Your task to perform on an android device: Show me the alarms in the clock app Image 0: 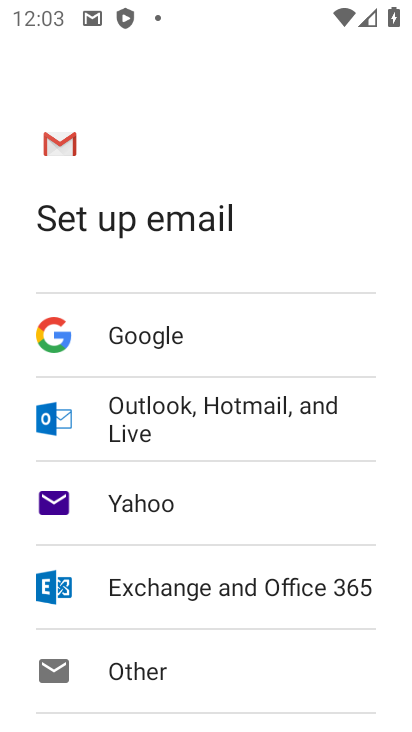
Step 0: press home button
Your task to perform on an android device: Show me the alarms in the clock app Image 1: 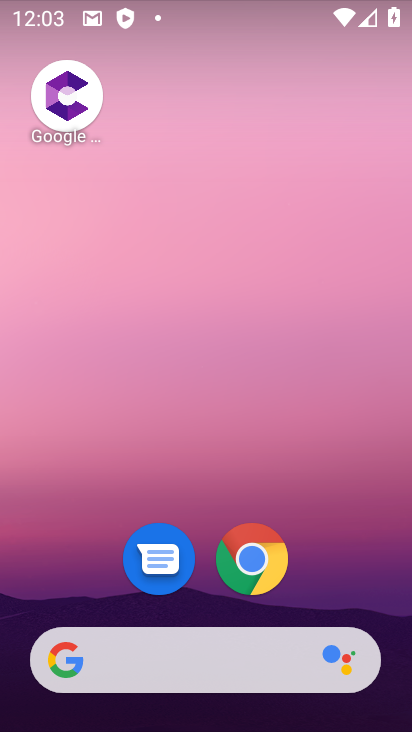
Step 1: drag from (54, 729) to (278, 7)
Your task to perform on an android device: Show me the alarms in the clock app Image 2: 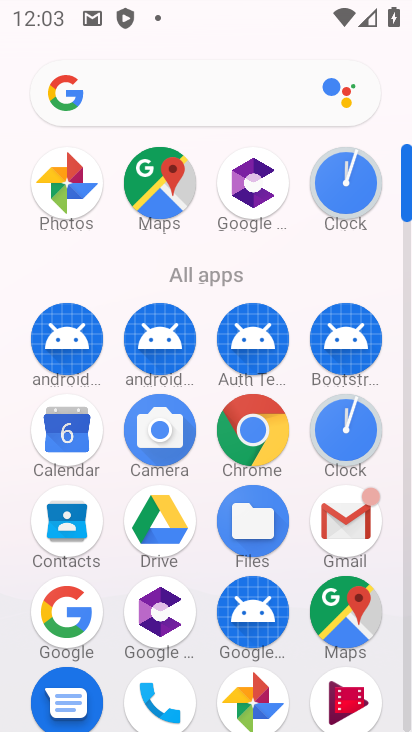
Step 2: click (362, 443)
Your task to perform on an android device: Show me the alarms in the clock app Image 3: 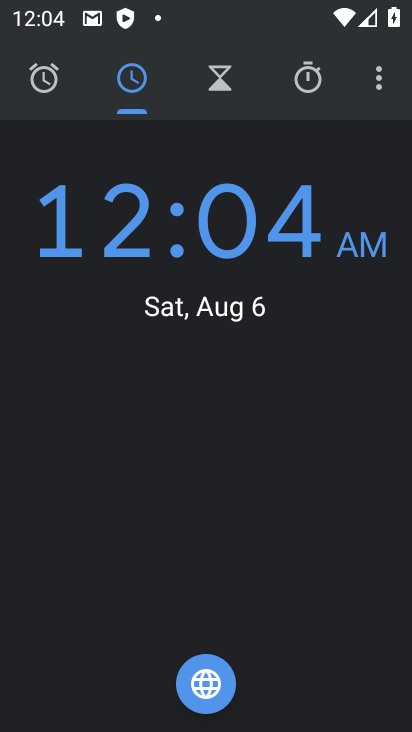
Step 3: click (54, 70)
Your task to perform on an android device: Show me the alarms in the clock app Image 4: 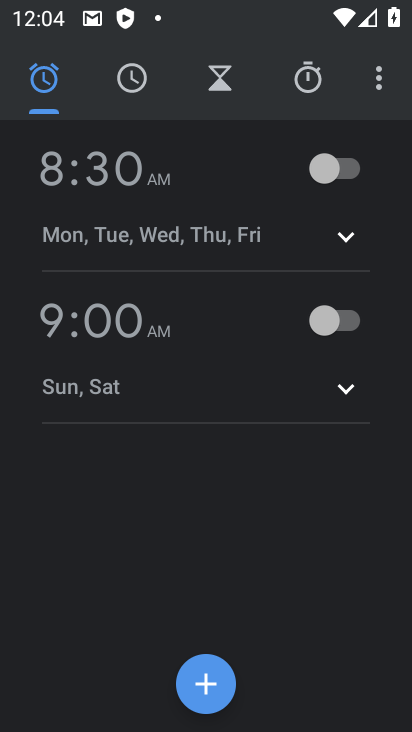
Step 4: task complete